Your task to perform on an android device: move a message to another label in the gmail app Image 0: 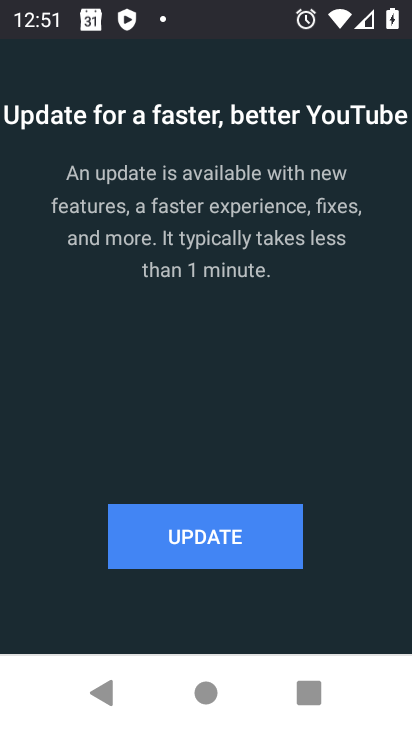
Step 0: press back button
Your task to perform on an android device: move a message to another label in the gmail app Image 1: 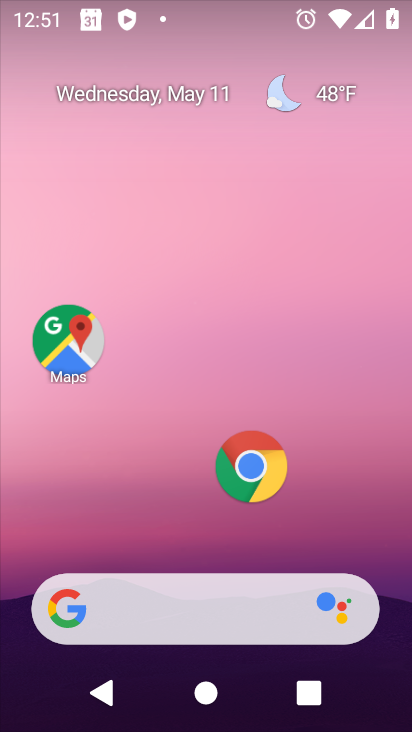
Step 1: drag from (177, 525) to (231, 91)
Your task to perform on an android device: move a message to another label in the gmail app Image 2: 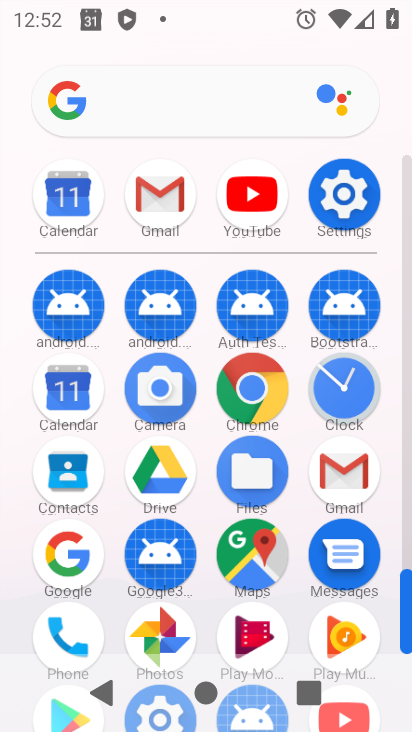
Step 2: click (185, 186)
Your task to perform on an android device: move a message to another label in the gmail app Image 3: 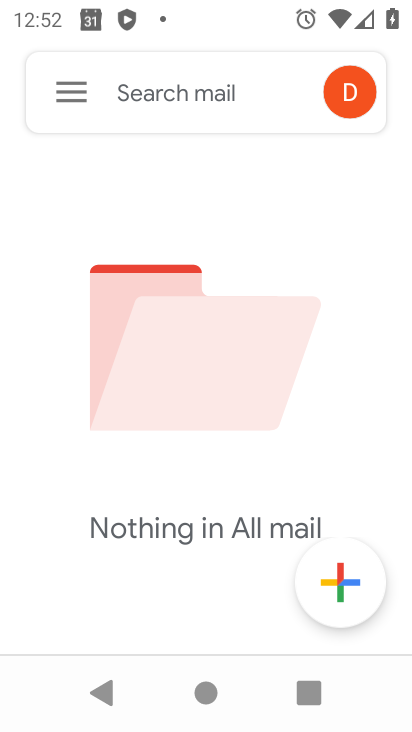
Step 3: click (57, 92)
Your task to perform on an android device: move a message to another label in the gmail app Image 4: 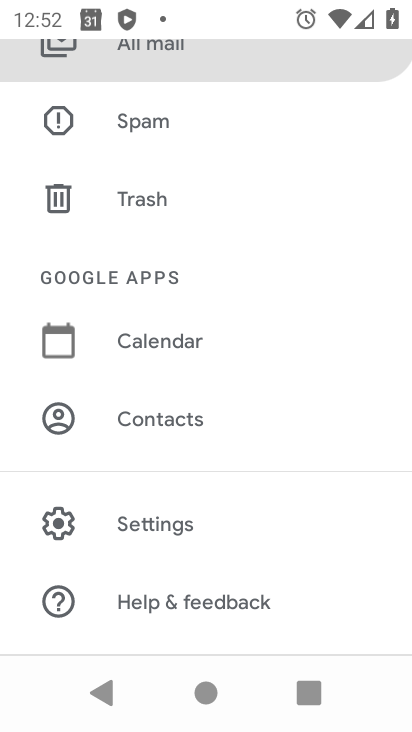
Step 4: task complete